Your task to perform on an android device: find snoozed emails in the gmail app Image 0: 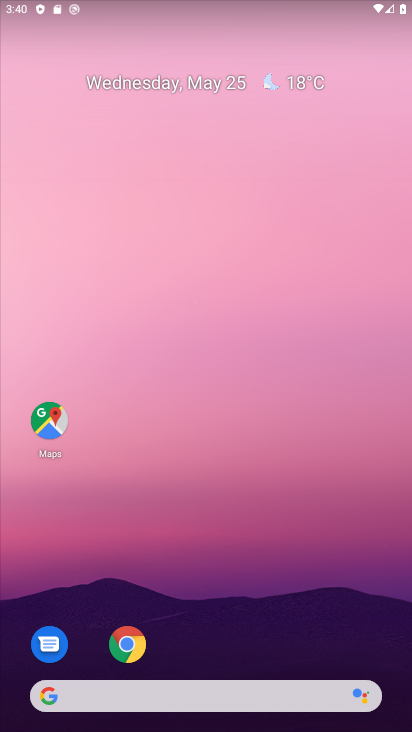
Step 0: drag from (258, 573) to (162, 64)
Your task to perform on an android device: find snoozed emails in the gmail app Image 1: 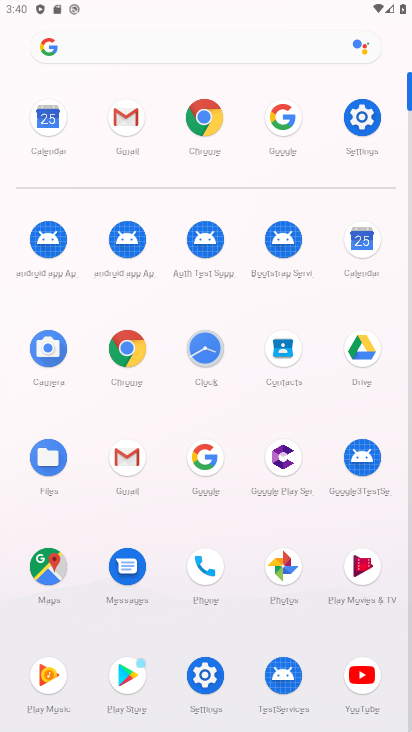
Step 1: click (126, 457)
Your task to perform on an android device: find snoozed emails in the gmail app Image 2: 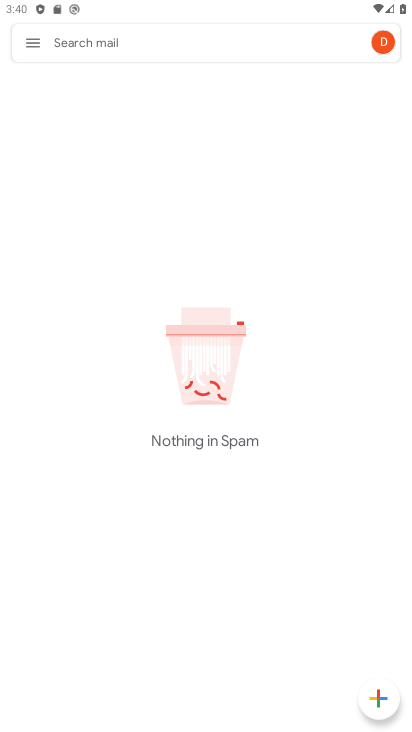
Step 2: click (34, 45)
Your task to perform on an android device: find snoozed emails in the gmail app Image 3: 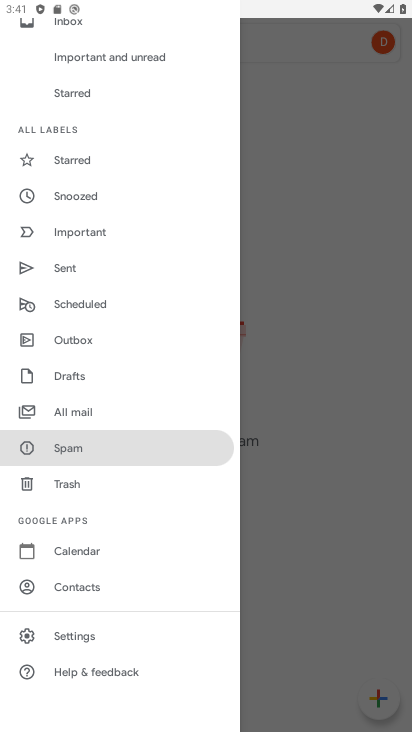
Step 3: click (90, 201)
Your task to perform on an android device: find snoozed emails in the gmail app Image 4: 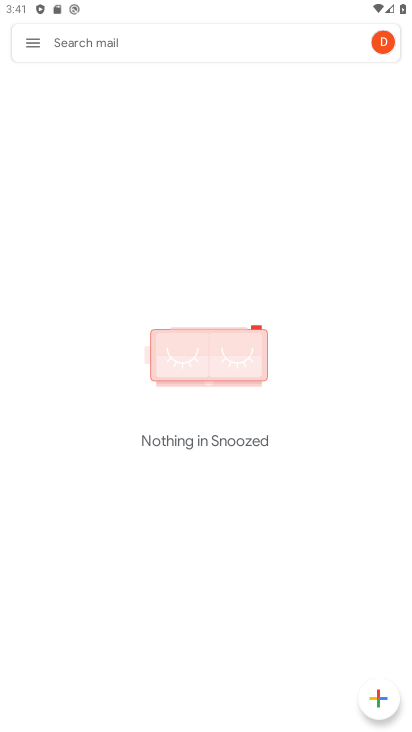
Step 4: click (36, 51)
Your task to perform on an android device: find snoozed emails in the gmail app Image 5: 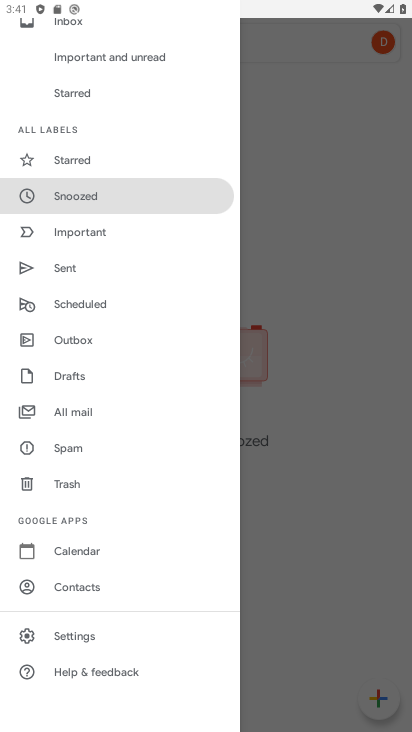
Step 5: click (75, 423)
Your task to perform on an android device: find snoozed emails in the gmail app Image 6: 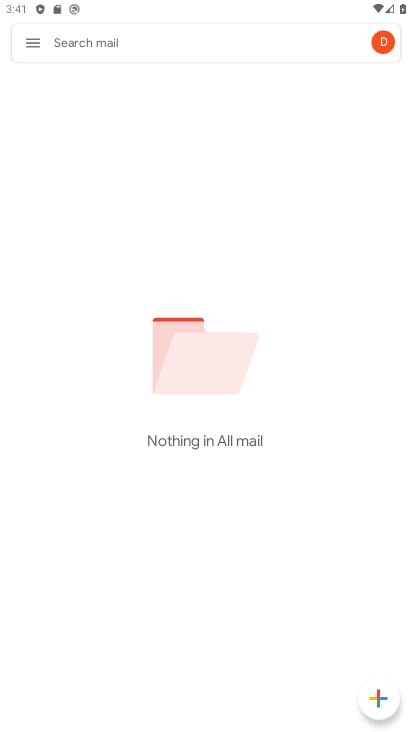
Step 6: task complete